Your task to perform on an android device: Open network settings Image 0: 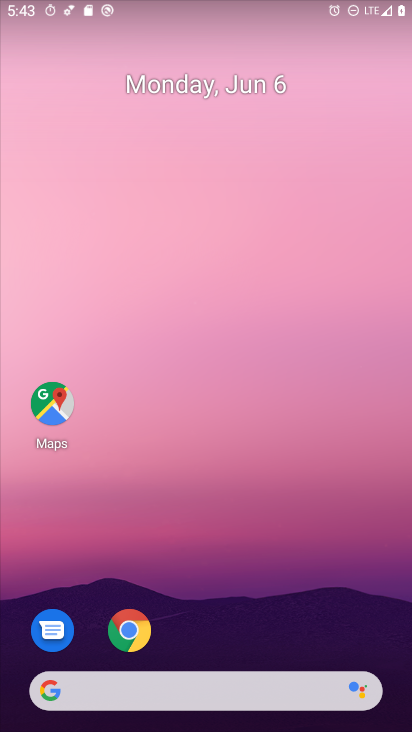
Step 0: drag from (233, 563) to (265, 20)
Your task to perform on an android device: Open network settings Image 1: 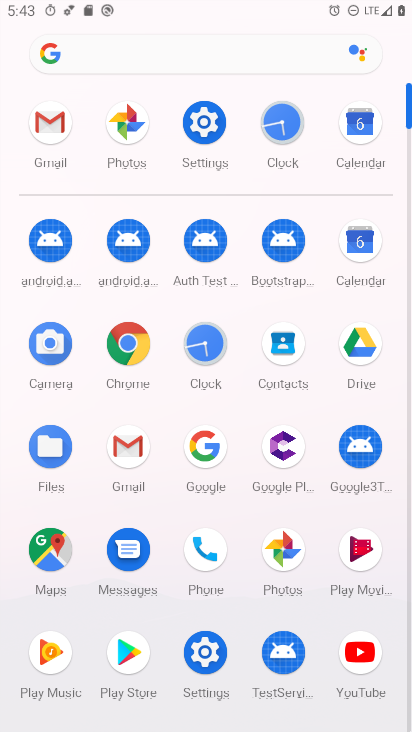
Step 1: click (208, 135)
Your task to perform on an android device: Open network settings Image 2: 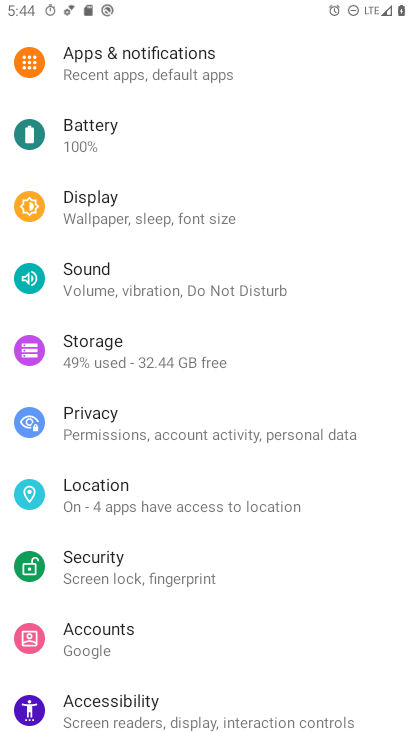
Step 2: drag from (212, 322) to (229, 642)
Your task to perform on an android device: Open network settings Image 3: 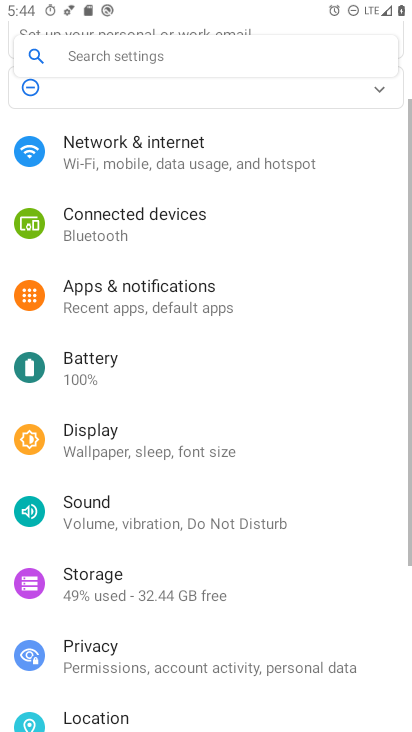
Step 3: click (169, 102)
Your task to perform on an android device: Open network settings Image 4: 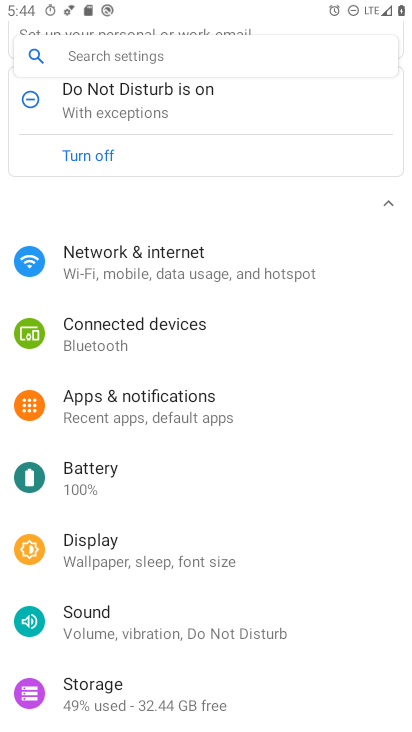
Step 4: click (166, 266)
Your task to perform on an android device: Open network settings Image 5: 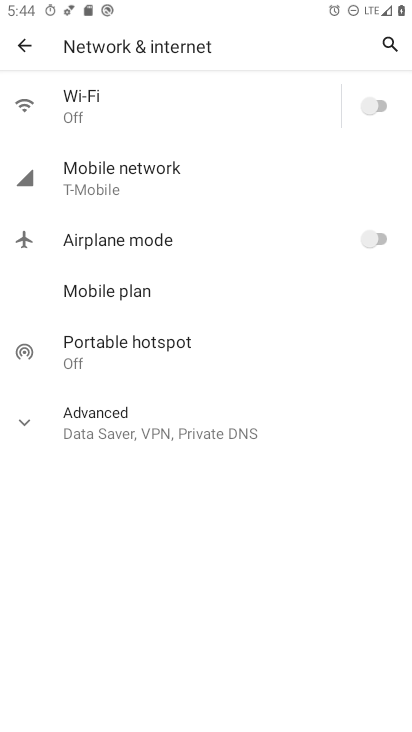
Step 5: task complete